Your task to perform on an android device: Open settings Image 0: 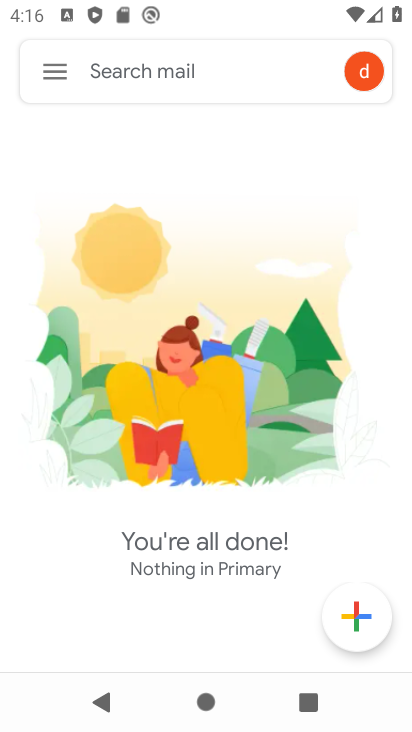
Step 0: press home button
Your task to perform on an android device: Open settings Image 1: 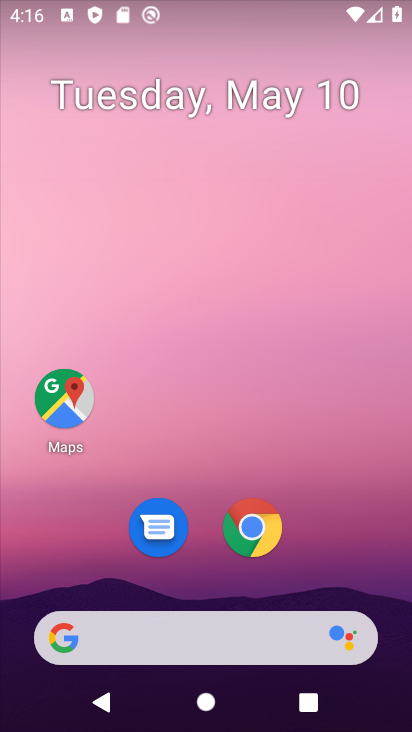
Step 1: drag from (208, 479) to (271, 12)
Your task to perform on an android device: Open settings Image 2: 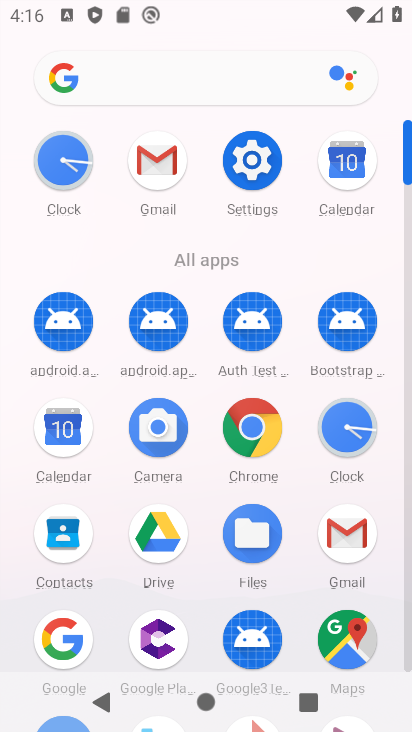
Step 2: click (264, 155)
Your task to perform on an android device: Open settings Image 3: 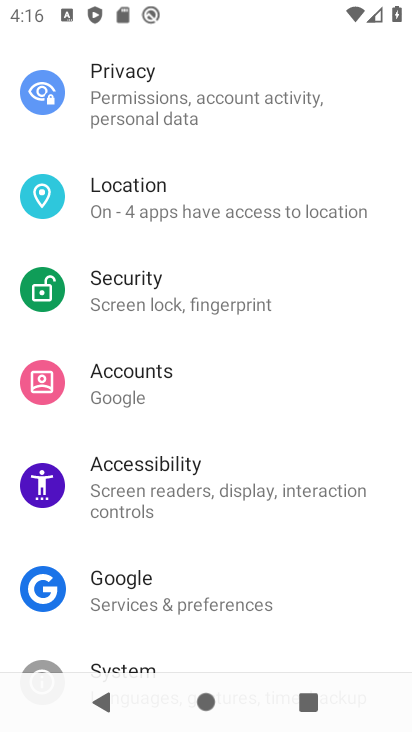
Step 3: task complete